Your task to perform on an android device: turn off notifications settings in the gmail app Image 0: 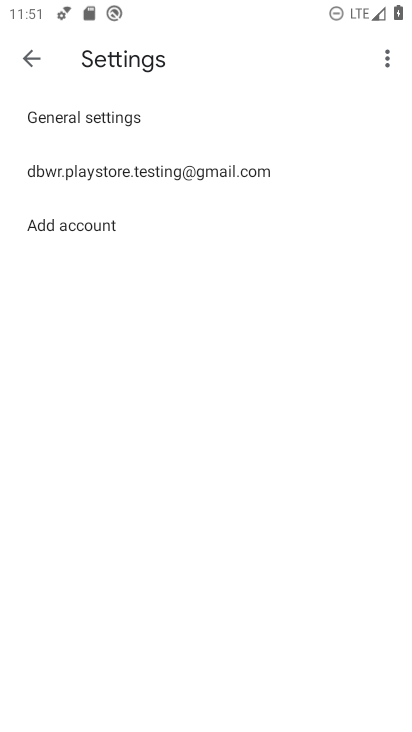
Step 0: click (94, 173)
Your task to perform on an android device: turn off notifications settings in the gmail app Image 1: 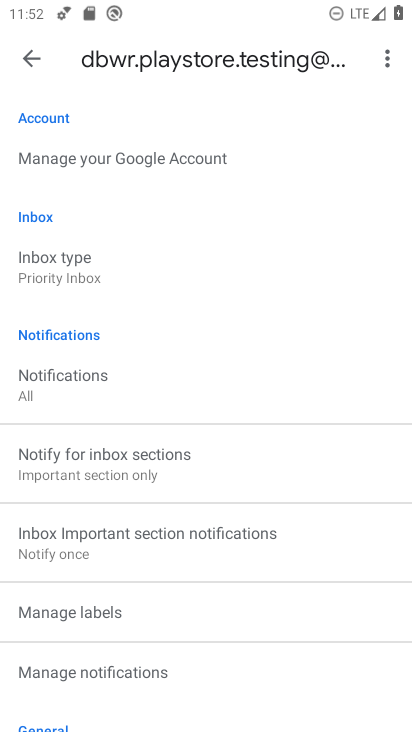
Step 1: click (122, 667)
Your task to perform on an android device: turn off notifications settings in the gmail app Image 2: 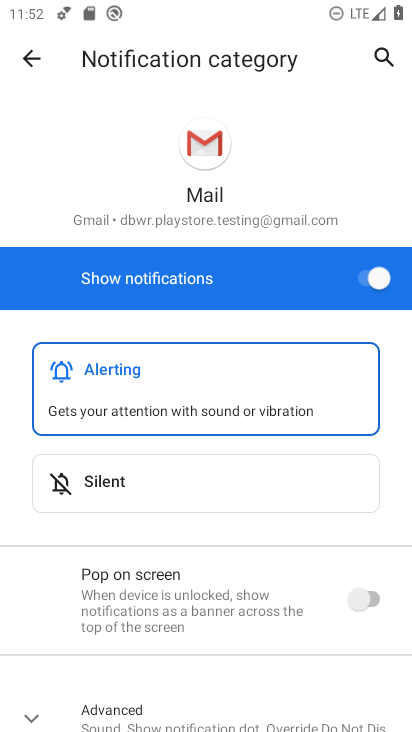
Step 2: click (368, 279)
Your task to perform on an android device: turn off notifications settings in the gmail app Image 3: 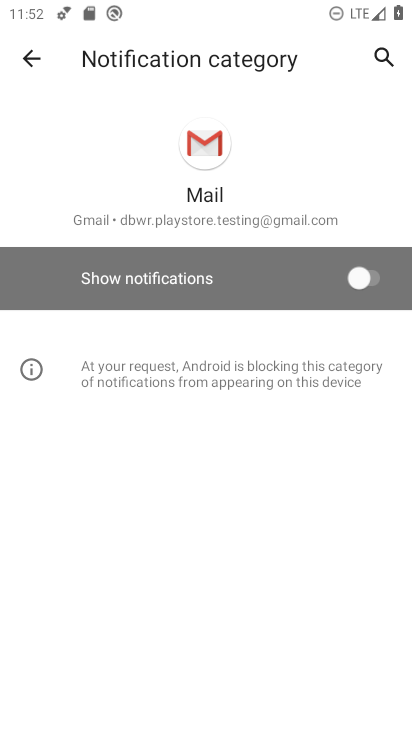
Step 3: task complete